Your task to perform on an android device: open device folders in google photos Image 0: 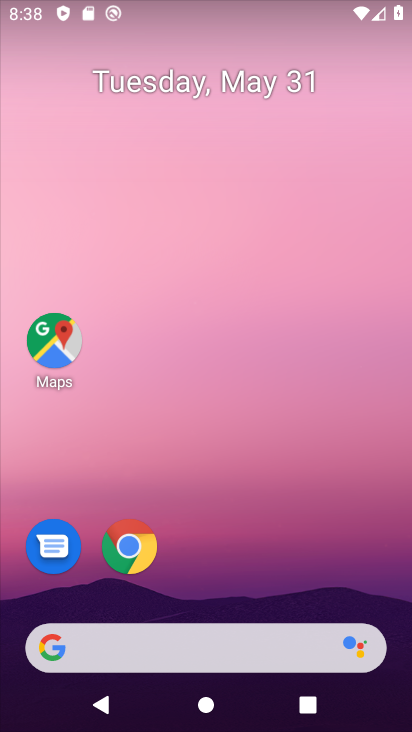
Step 0: drag from (397, 654) to (315, 138)
Your task to perform on an android device: open device folders in google photos Image 1: 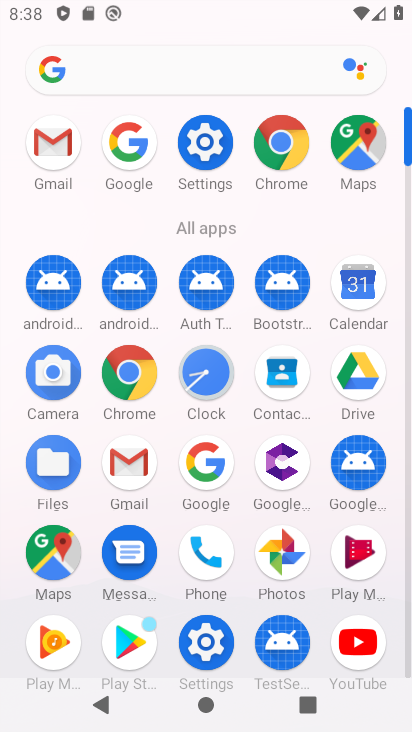
Step 1: click (287, 549)
Your task to perform on an android device: open device folders in google photos Image 2: 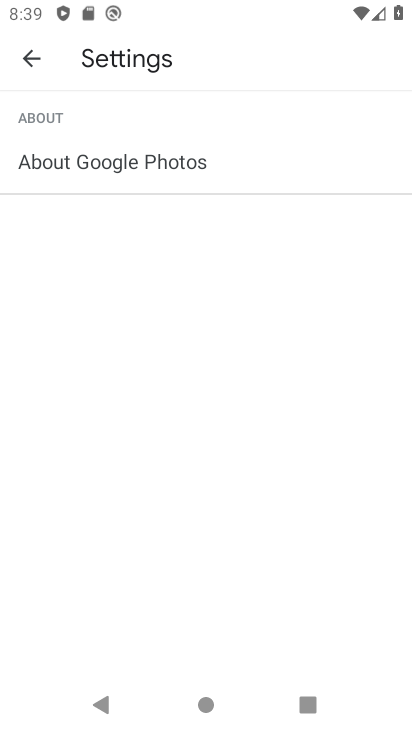
Step 2: click (34, 63)
Your task to perform on an android device: open device folders in google photos Image 3: 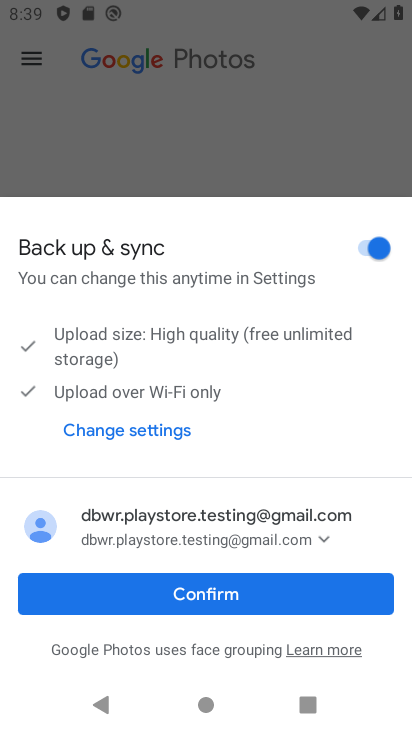
Step 3: click (194, 601)
Your task to perform on an android device: open device folders in google photos Image 4: 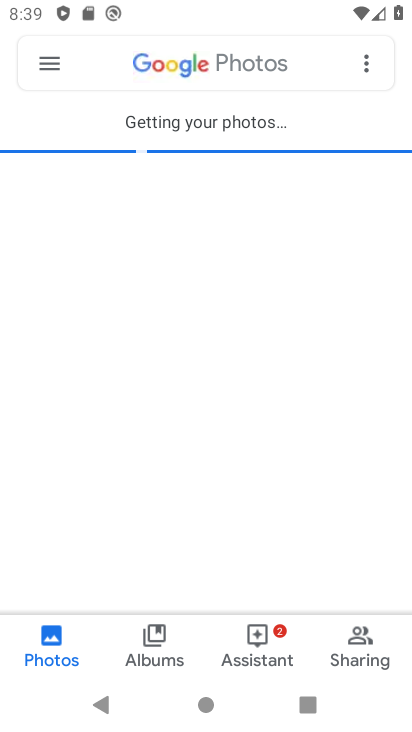
Step 4: click (46, 63)
Your task to perform on an android device: open device folders in google photos Image 5: 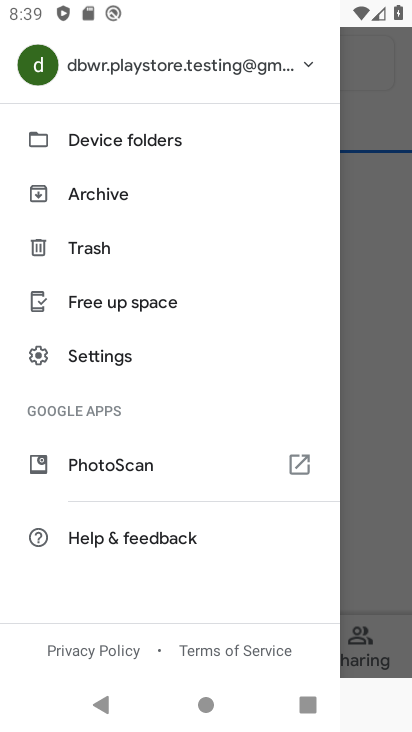
Step 5: click (126, 139)
Your task to perform on an android device: open device folders in google photos Image 6: 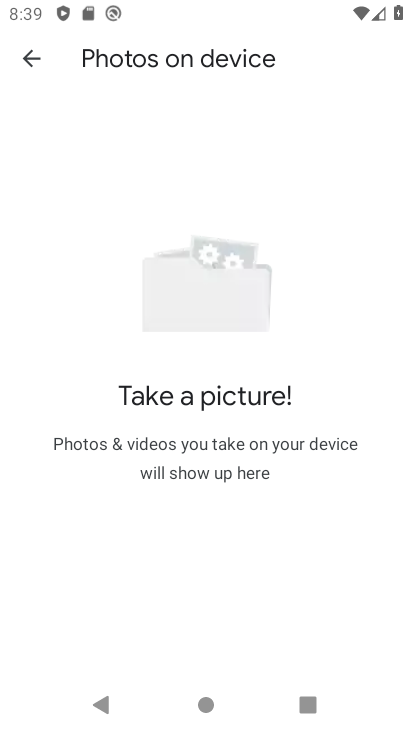
Step 6: task complete